Your task to perform on an android device: Open maps Image 0: 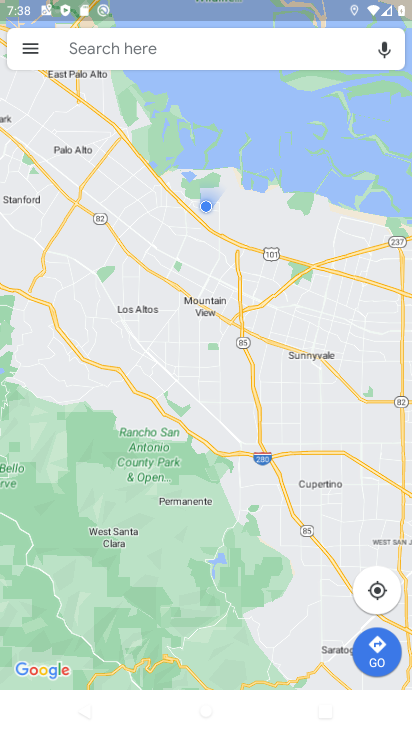
Step 0: press home button
Your task to perform on an android device: Open maps Image 1: 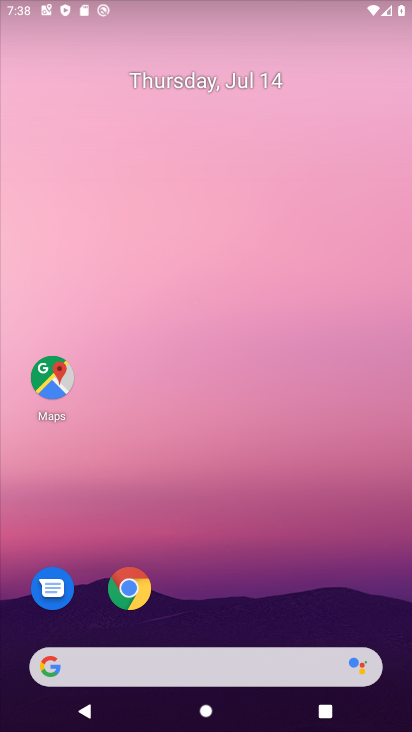
Step 1: drag from (378, 633) to (266, 58)
Your task to perform on an android device: Open maps Image 2: 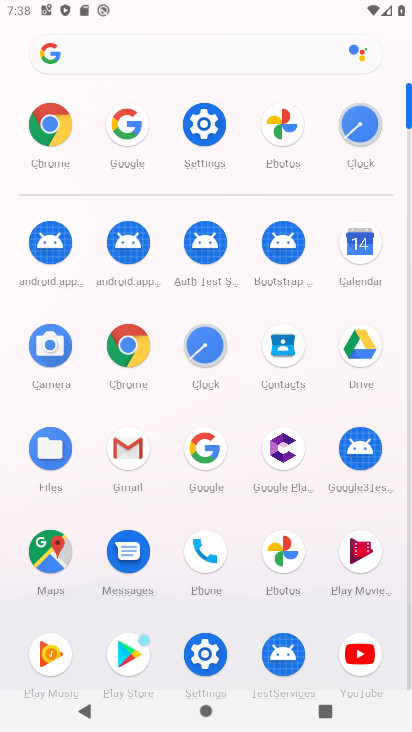
Step 2: click (15, 545)
Your task to perform on an android device: Open maps Image 3: 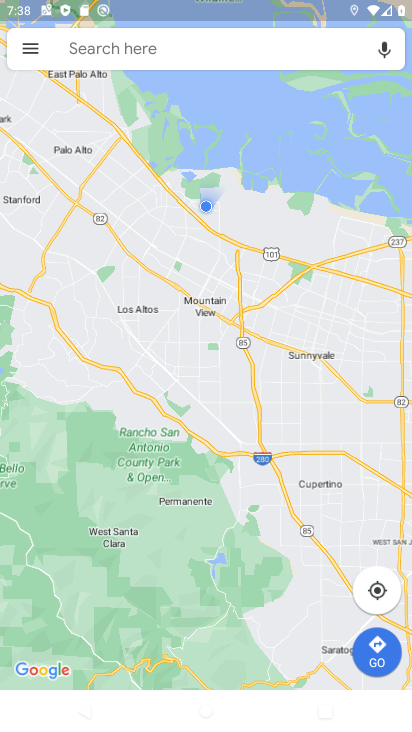
Step 3: task complete